Your task to perform on an android device: delete location history Image 0: 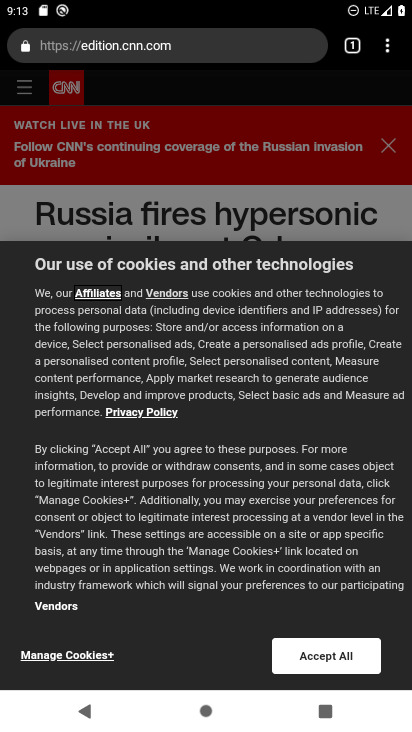
Step 0: click (388, 38)
Your task to perform on an android device: delete location history Image 1: 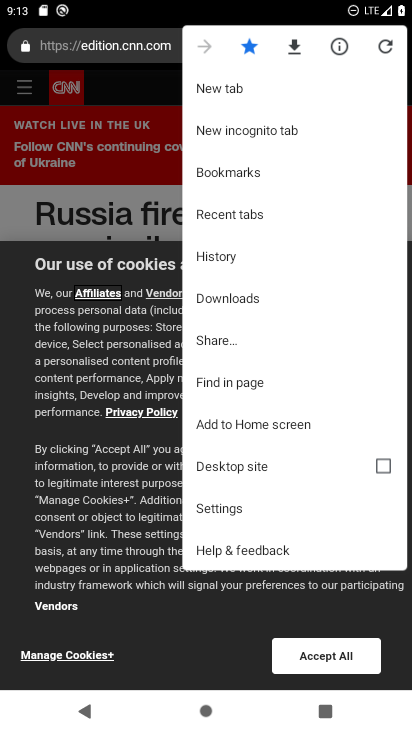
Step 1: press home button
Your task to perform on an android device: delete location history Image 2: 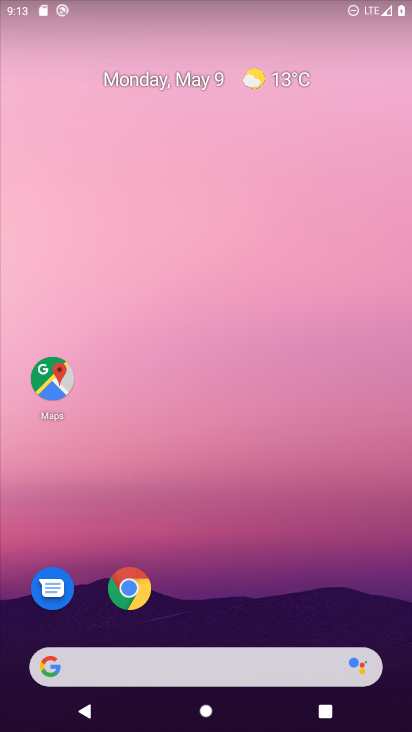
Step 2: drag from (324, 547) to (333, 50)
Your task to perform on an android device: delete location history Image 3: 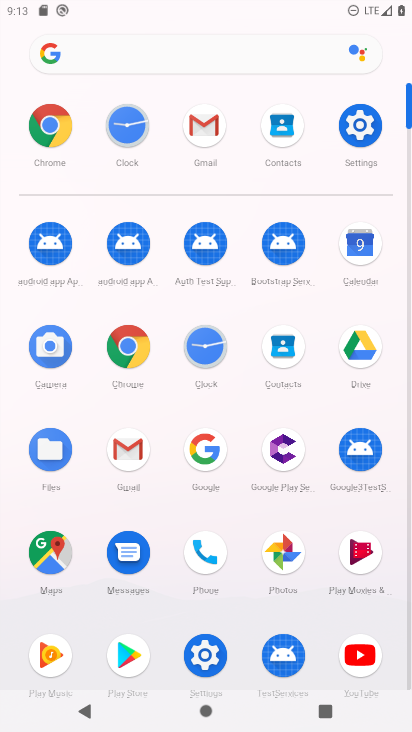
Step 3: click (370, 150)
Your task to perform on an android device: delete location history Image 4: 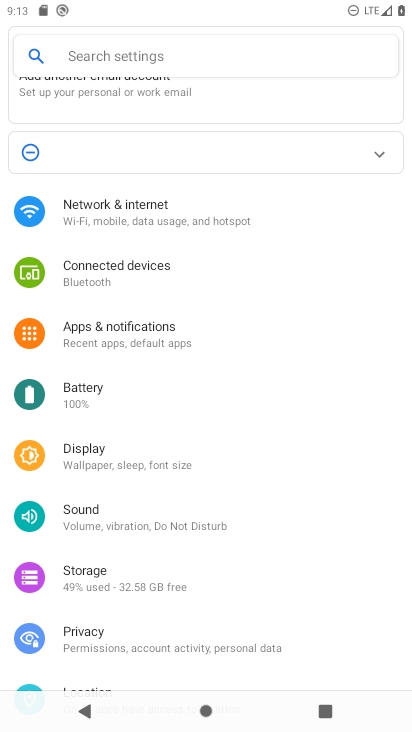
Step 4: drag from (130, 559) to (165, 289)
Your task to perform on an android device: delete location history Image 5: 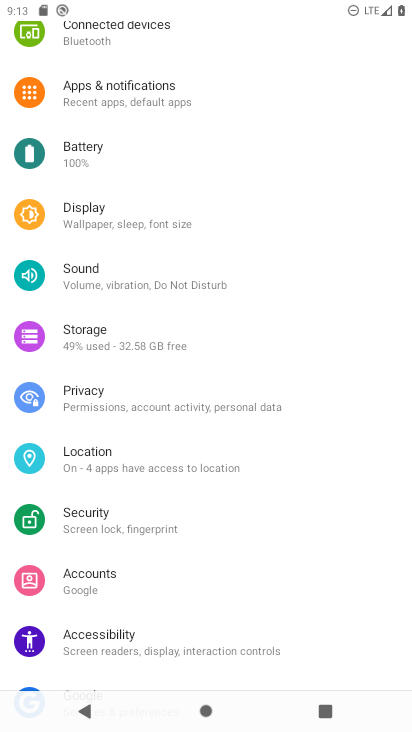
Step 5: click (172, 467)
Your task to perform on an android device: delete location history Image 6: 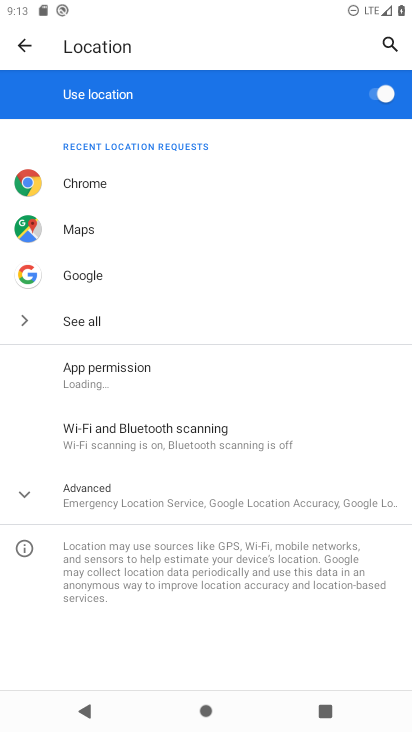
Step 6: click (178, 506)
Your task to perform on an android device: delete location history Image 7: 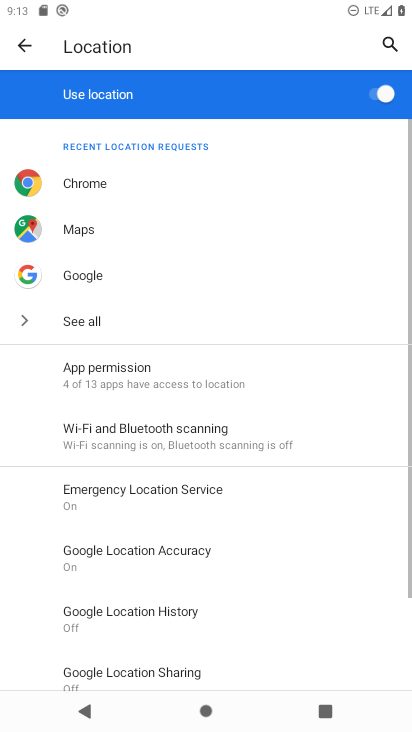
Step 7: click (174, 624)
Your task to perform on an android device: delete location history Image 8: 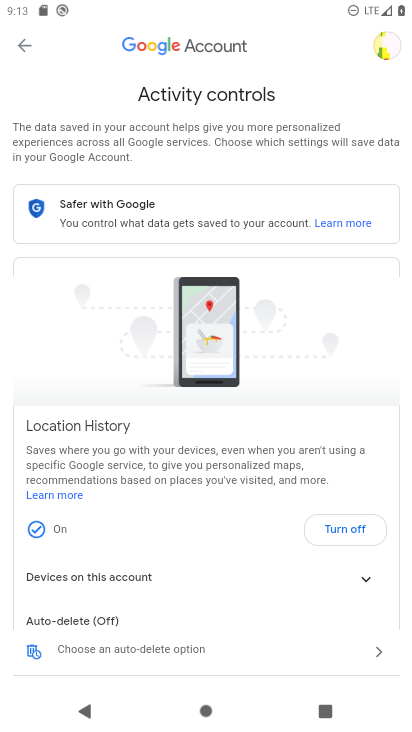
Step 8: click (320, 524)
Your task to perform on an android device: delete location history Image 9: 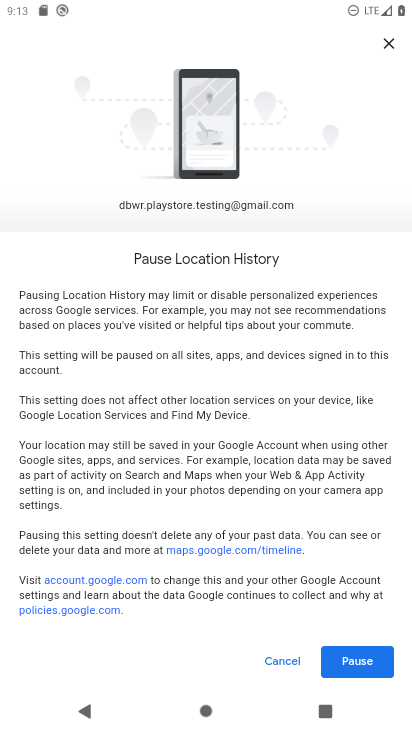
Step 9: click (282, 657)
Your task to perform on an android device: delete location history Image 10: 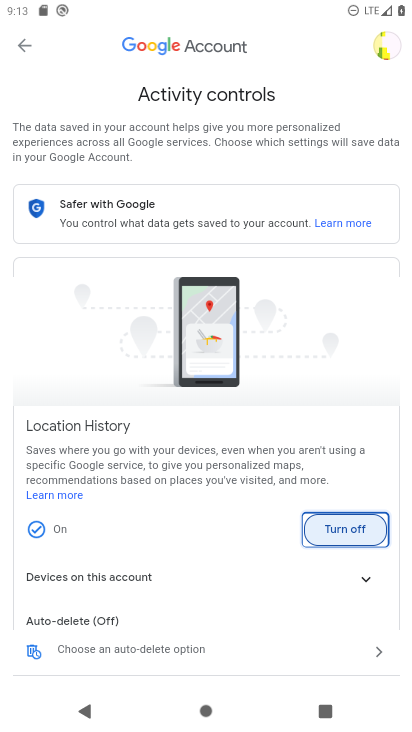
Step 10: click (141, 623)
Your task to perform on an android device: delete location history Image 11: 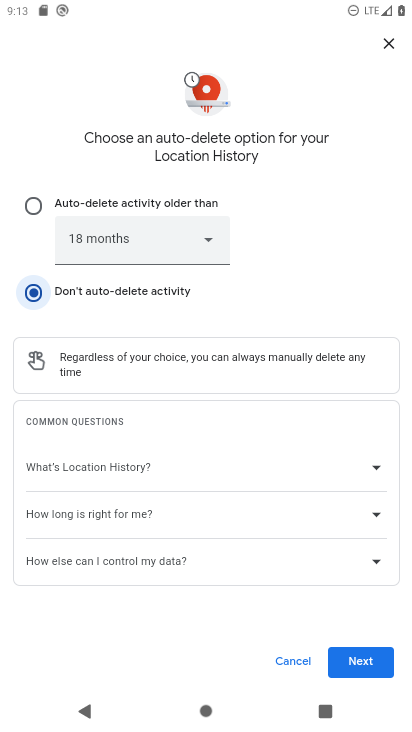
Step 11: click (366, 655)
Your task to perform on an android device: delete location history Image 12: 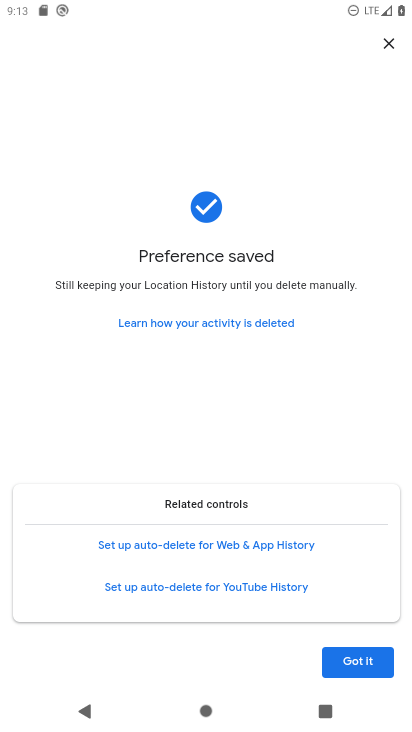
Step 12: click (366, 655)
Your task to perform on an android device: delete location history Image 13: 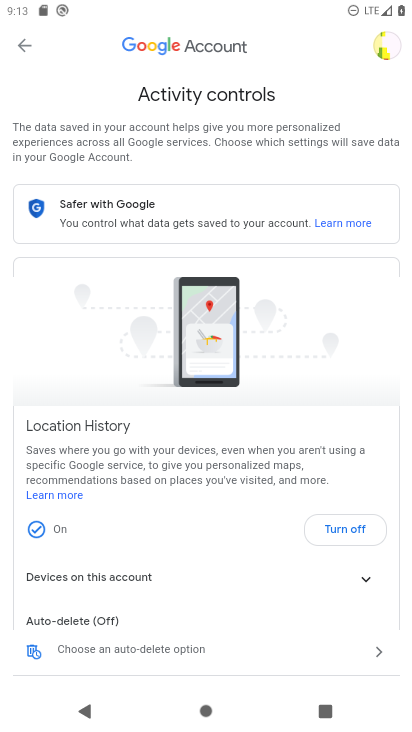
Step 13: task complete